Your task to perform on an android device: change the clock display to analog Image 0: 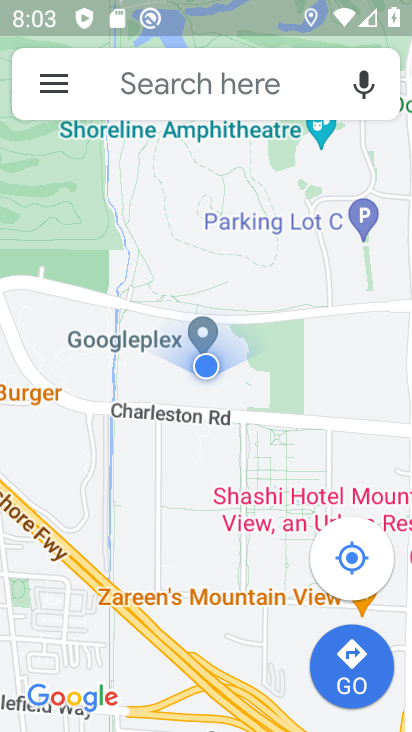
Step 0: press home button
Your task to perform on an android device: change the clock display to analog Image 1: 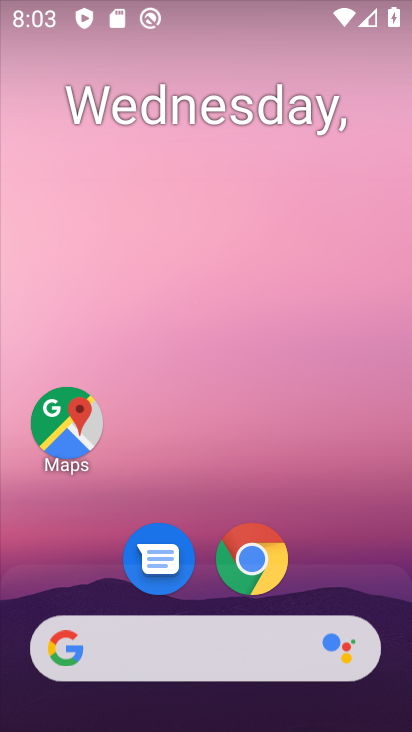
Step 1: drag from (229, 654) to (286, 213)
Your task to perform on an android device: change the clock display to analog Image 2: 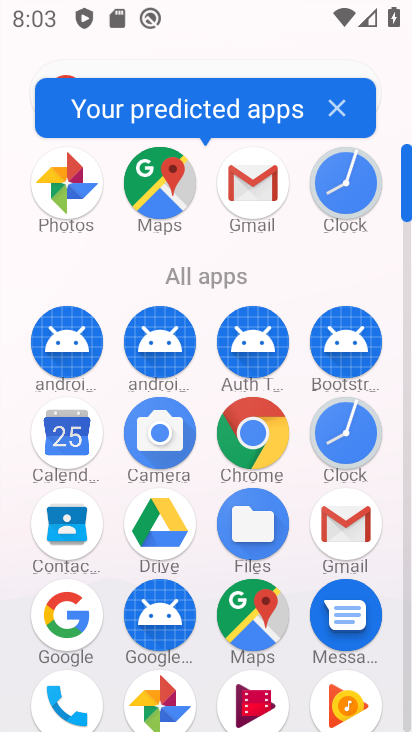
Step 2: click (348, 435)
Your task to perform on an android device: change the clock display to analog Image 3: 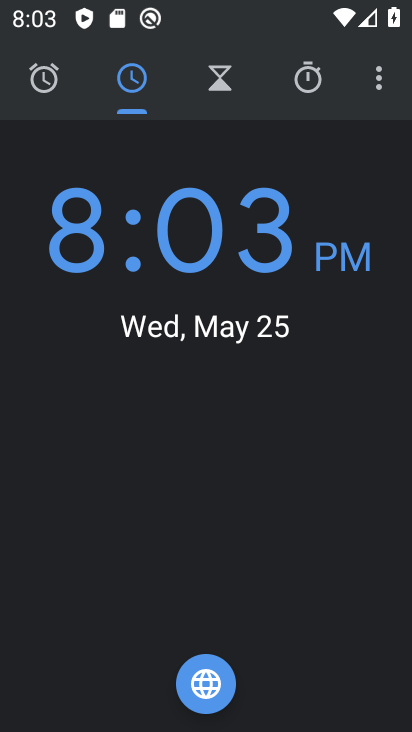
Step 3: click (374, 76)
Your task to perform on an android device: change the clock display to analog Image 4: 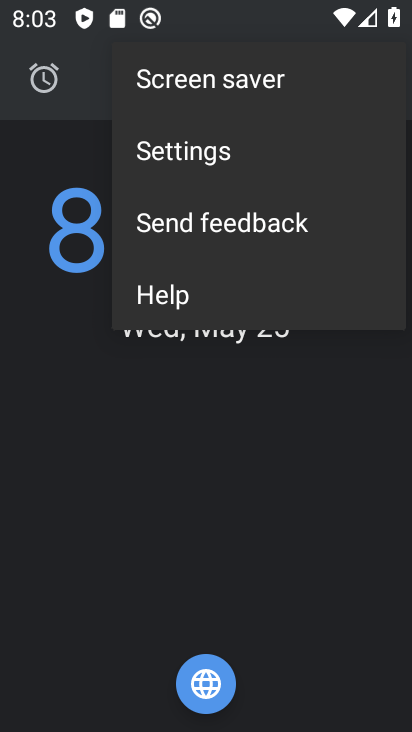
Step 4: click (230, 151)
Your task to perform on an android device: change the clock display to analog Image 5: 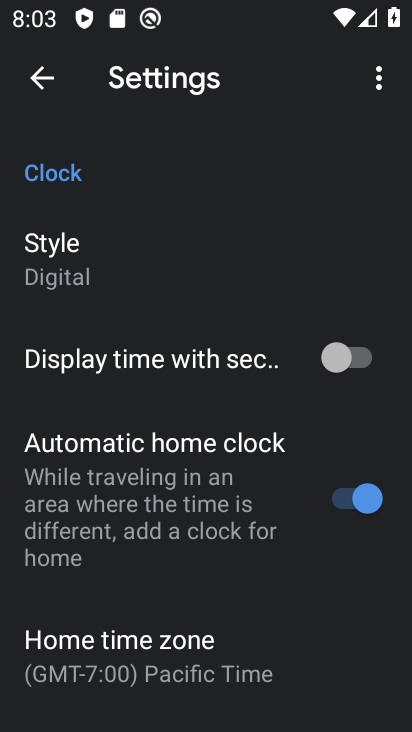
Step 5: click (88, 258)
Your task to perform on an android device: change the clock display to analog Image 6: 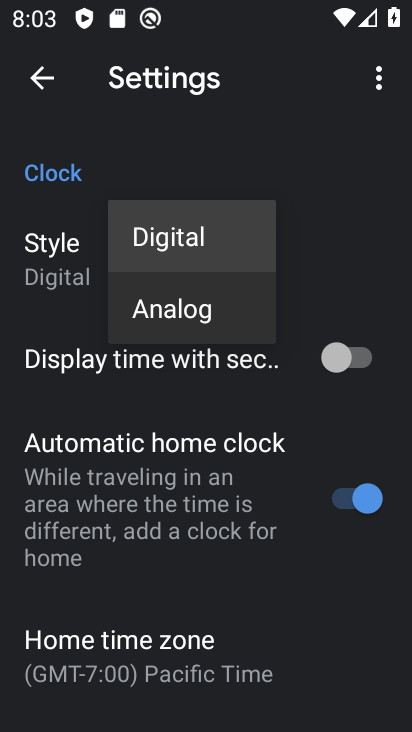
Step 6: click (141, 303)
Your task to perform on an android device: change the clock display to analog Image 7: 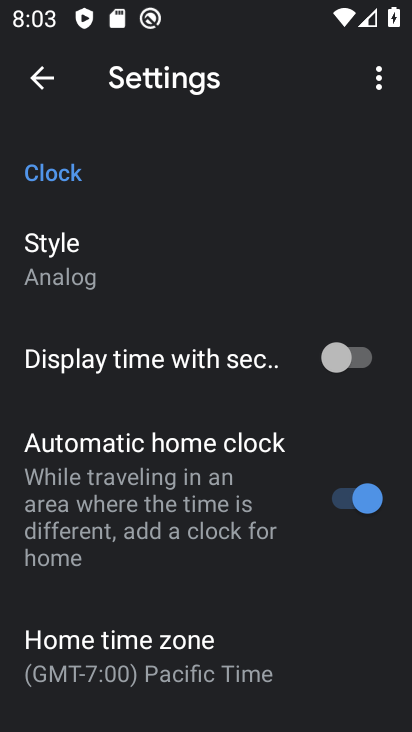
Step 7: task complete